Your task to perform on an android device: Go to accessibility settings Image 0: 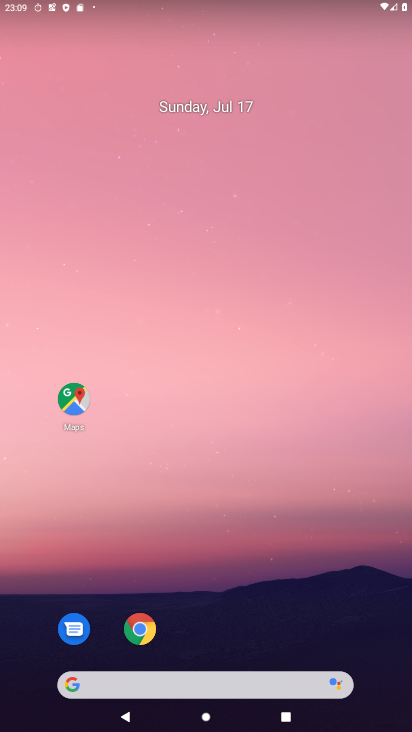
Step 0: drag from (244, 700) to (269, 86)
Your task to perform on an android device: Go to accessibility settings Image 1: 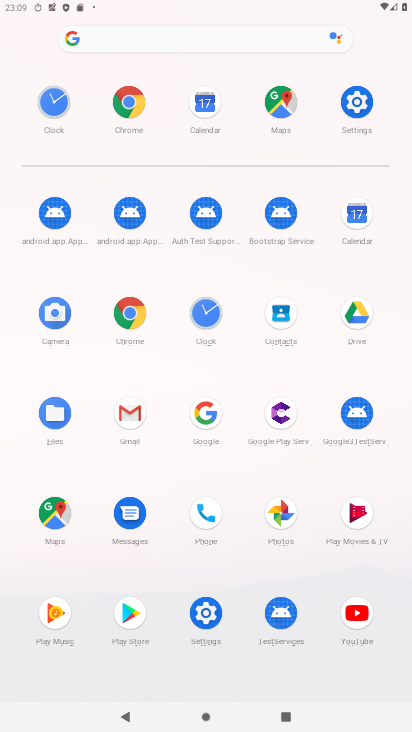
Step 1: click (354, 98)
Your task to perform on an android device: Go to accessibility settings Image 2: 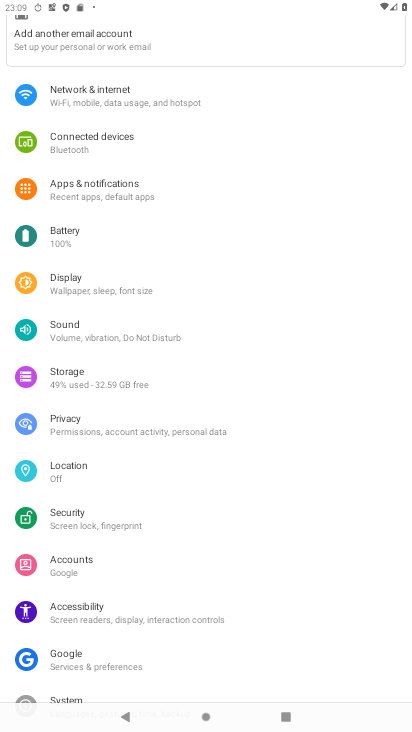
Step 2: click (76, 612)
Your task to perform on an android device: Go to accessibility settings Image 3: 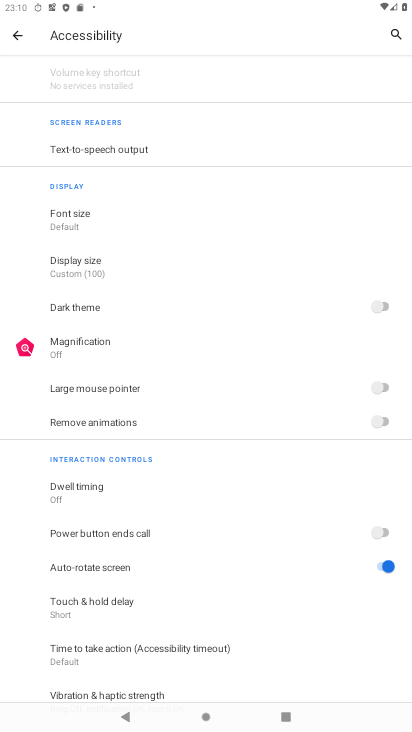
Step 3: task complete